Your task to perform on an android device: Show me recent news Image 0: 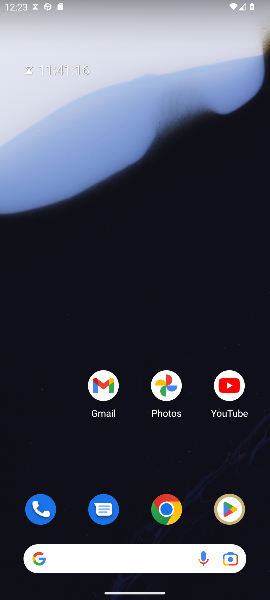
Step 0: press home button
Your task to perform on an android device: Show me recent news Image 1: 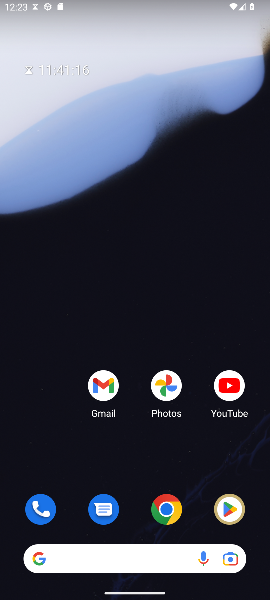
Step 1: drag from (197, 266) to (195, 29)
Your task to perform on an android device: Show me recent news Image 2: 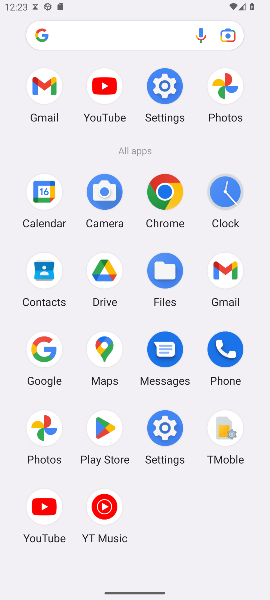
Step 2: click (35, 352)
Your task to perform on an android device: Show me recent news Image 3: 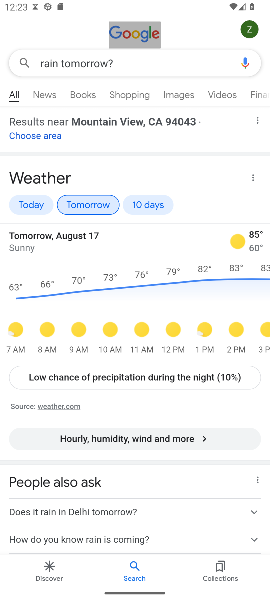
Step 3: click (138, 61)
Your task to perform on an android device: Show me recent news Image 4: 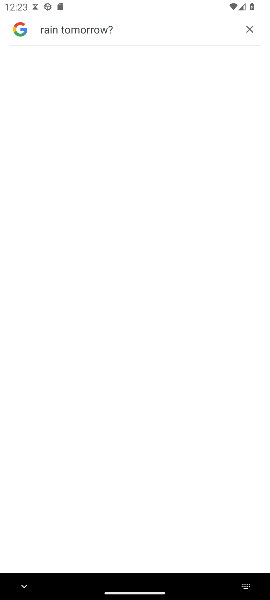
Step 4: click (250, 31)
Your task to perform on an android device: Show me recent news Image 5: 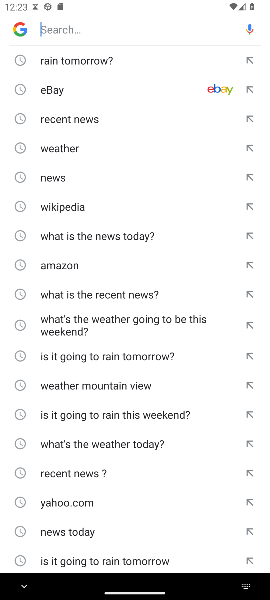
Step 5: click (73, 120)
Your task to perform on an android device: Show me recent news Image 6: 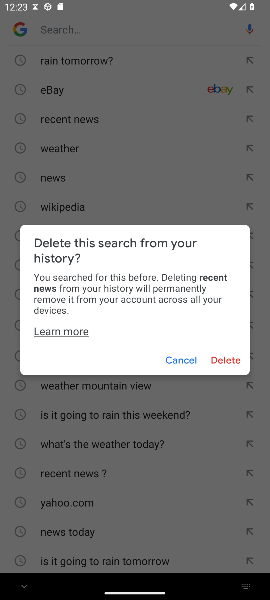
Step 6: click (183, 359)
Your task to perform on an android device: Show me recent news Image 7: 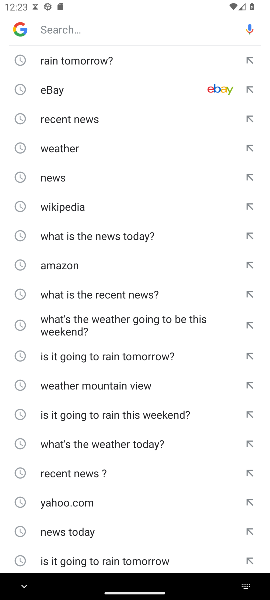
Step 7: type "recent news"
Your task to perform on an android device: Show me recent news Image 8: 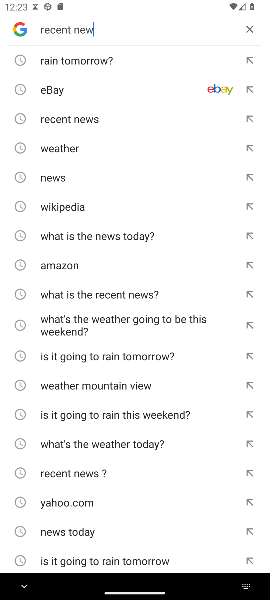
Step 8: press enter
Your task to perform on an android device: Show me recent news Image 9: 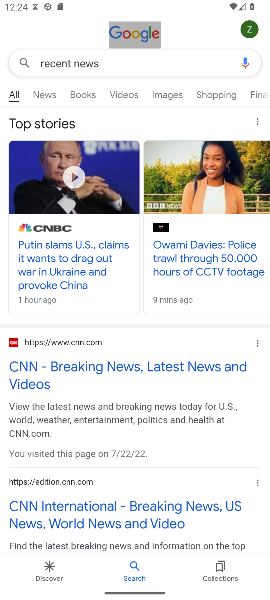
Step 9: task complete